Your task to perform on an android device: Do I have any events this weekend? Image 0: 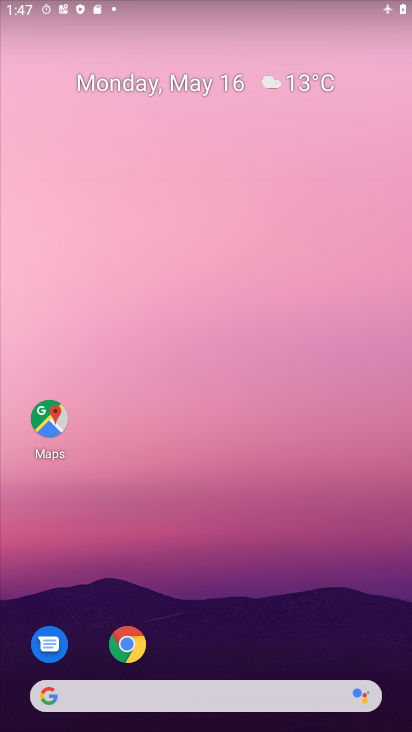
Step 0: drag from (162, 704) to (226, 244)
Your task to perform on an android device: Do I have any events this weekend? Image 1: 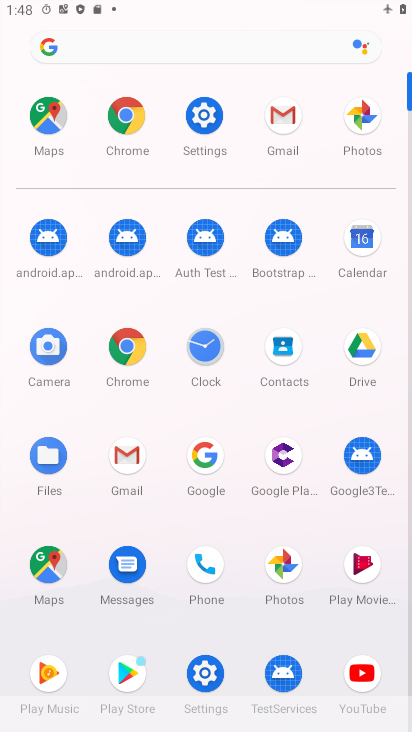
Step 1: click (362, 254)
Your task to perform on an android device: Do I have any events this weekend? Image 2: 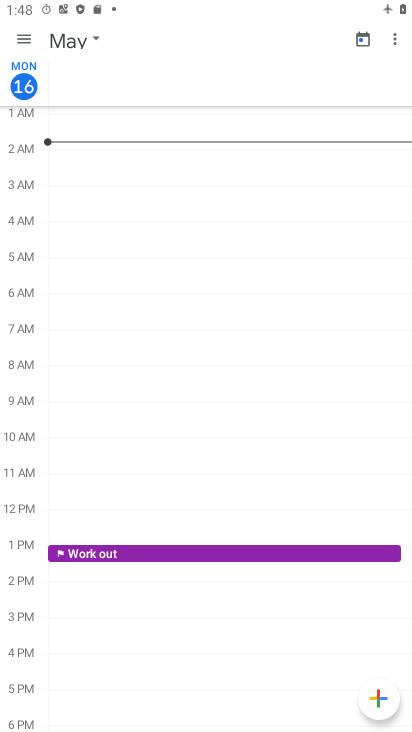
Step 2: click (87, 44)
Your task to perform on an android device: Do I have any events this weekend? Image 3: 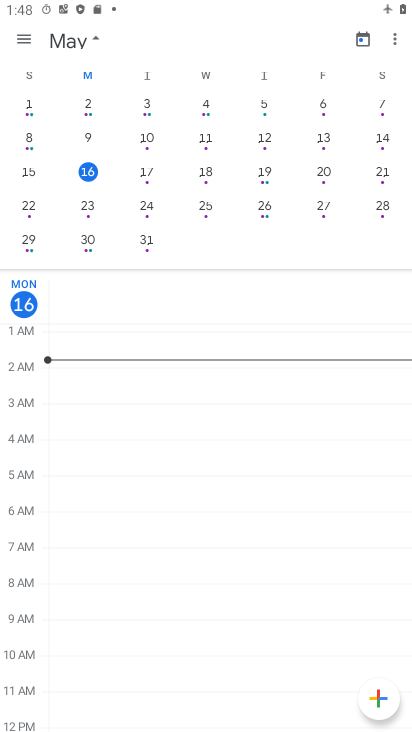
Step 3: click (382, 181)
Your task to perform on an android device: Do I have any events this weekend? Image 4: 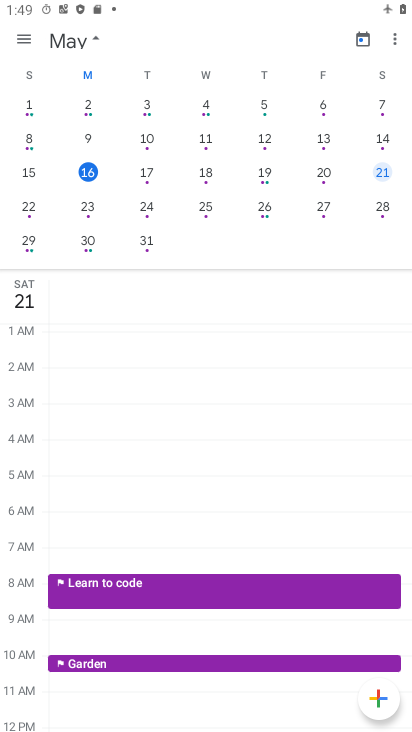
Step 4: task complete